Your task to perform on an android device: change timer sound Image 0: 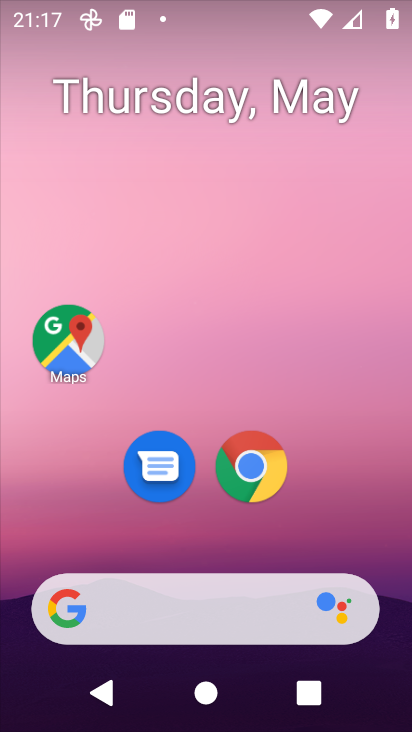
Step 0: click (357, 522)
Your task to perform on an android device: change timer sound Image 1: 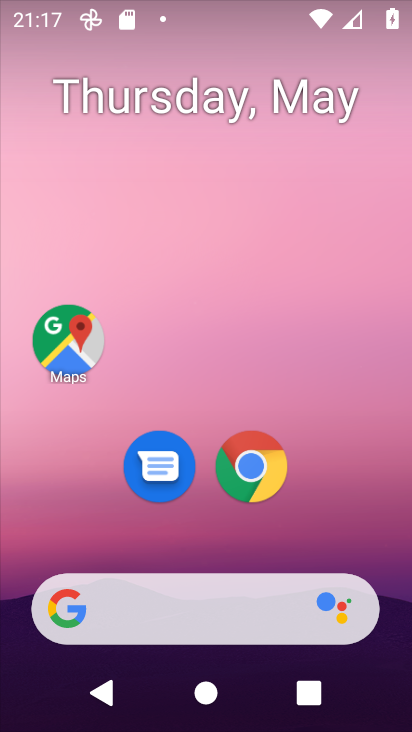
Step 1: drag from (357, 522) to (323, 98)
Your task to perform on an android device: change timer sound Image 2: 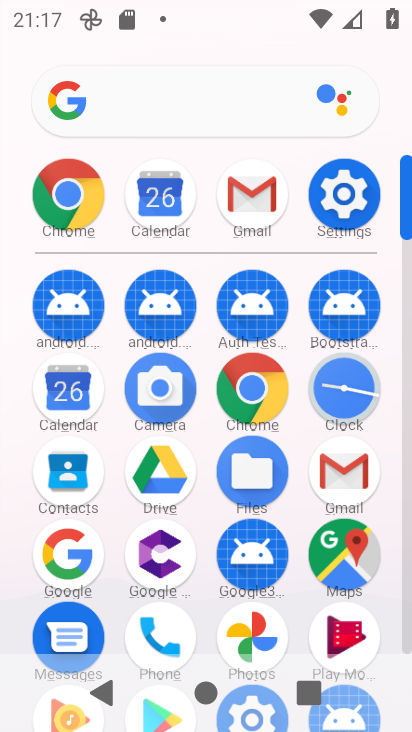
Step 2: click (338, 379)
Your task to perform on an android device: change timer sound Image 3: 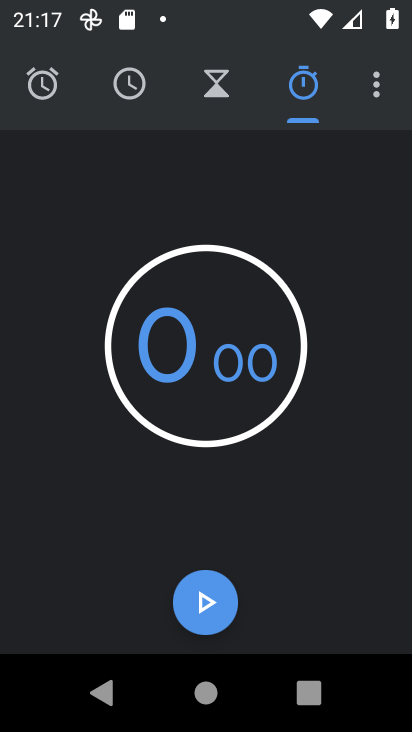
Step 3: click (372, 89)
Your task to perform on an android device: change timer sound Image 4: 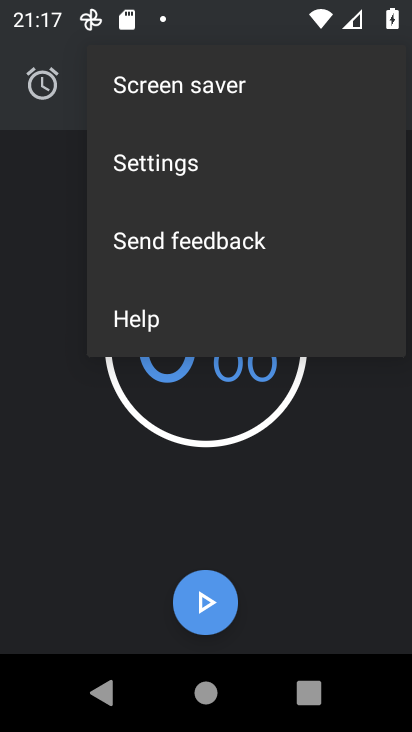
Step 4: click (245, 164)
Your task to perform on an android device: change timer sound Image 5: 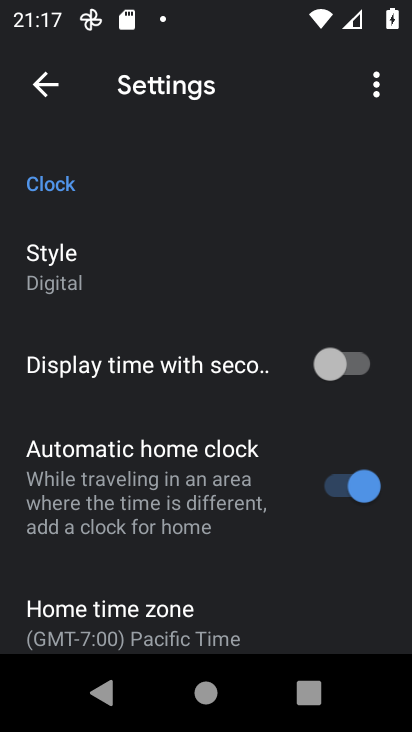
Step 5: task complete